Your task to perform on an android device: Open internet settings Image 0: 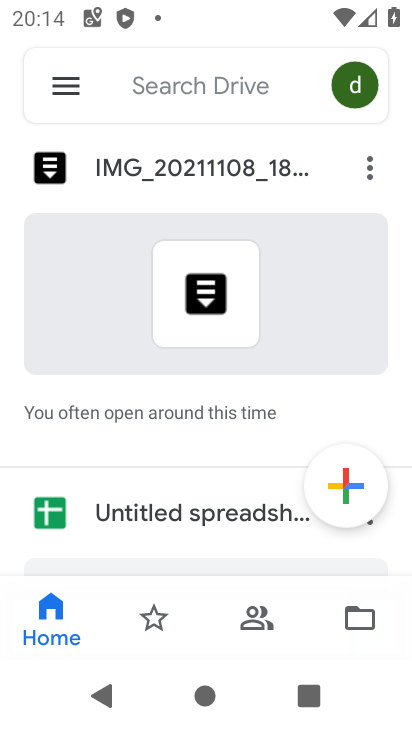
Step 0: press home button
Your task to perform on an android device: Open internet settings Image 1: 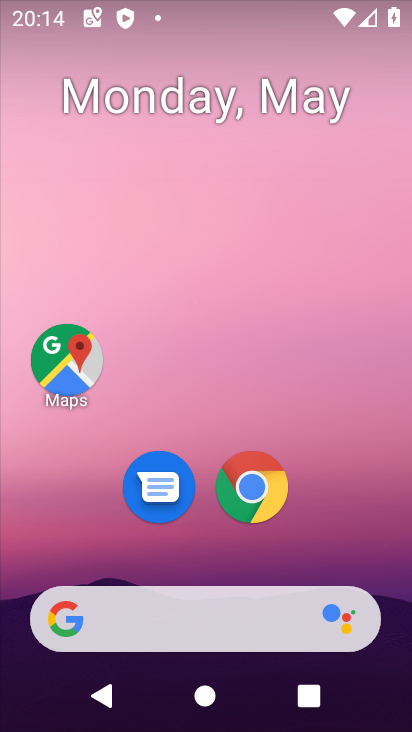
Step 1: drag from (382, 568) to (360, 168)
Your task to perform on an android device: Open internet settings Image 2: 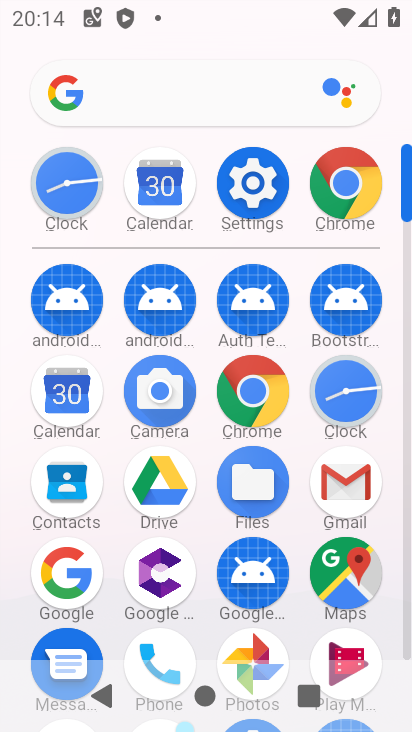
Step 2: click (258, 201)
Your task to perform on an android device: Open internet settings Image 3: 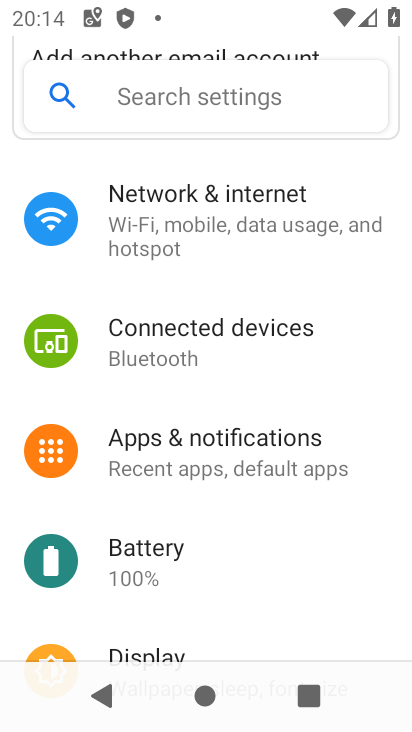
Step 3: drag from (346, 588) to (363, 433)
Your task to perform on an android device: Open internet settings Image 4: 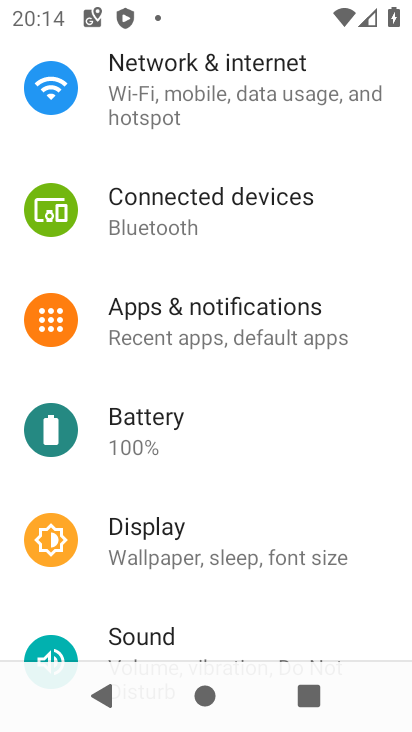
Step 4: drag from (364, 619) to (359, 441)
Your task to perform on an android device: Open internet settings Image 5: 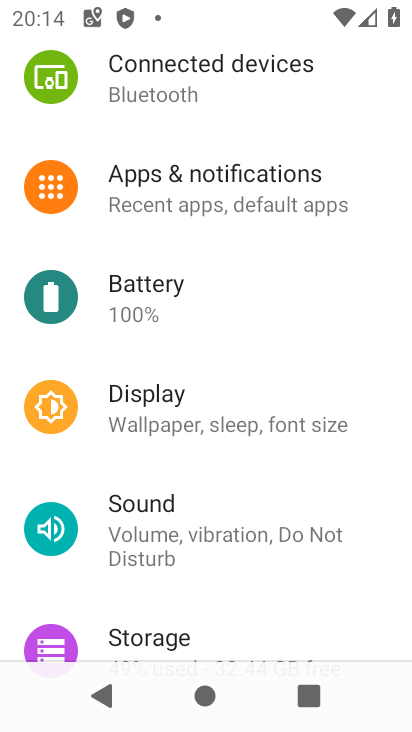
Step 5: drag from (364, 591) to (369, 452)
Your task to perform on an android device: Open internet settings Image 6: 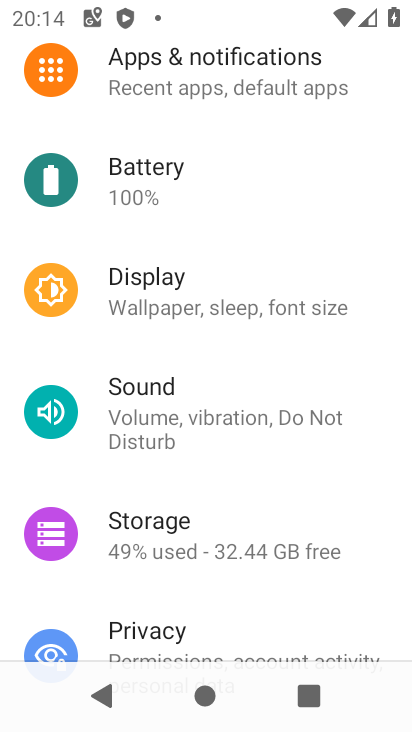
Step 6: drag from (367, 588) to (386, 470)
Your task to perform on an android device: Open internet settings Image 7: 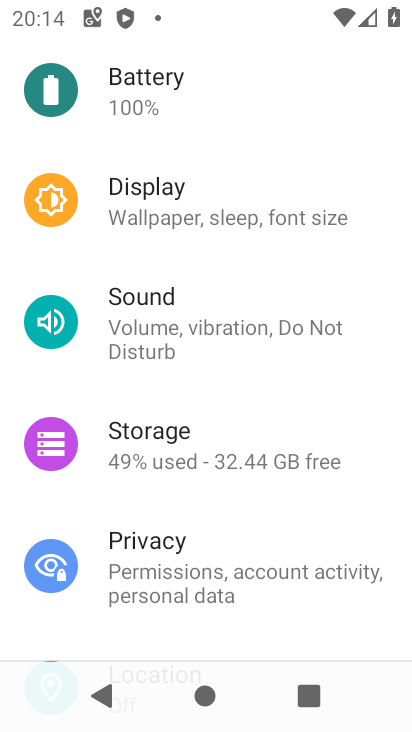
Step 7: drag from (390, 611) to (380, 486)
Your task to perform on an android device: Open internet settings Image 8: 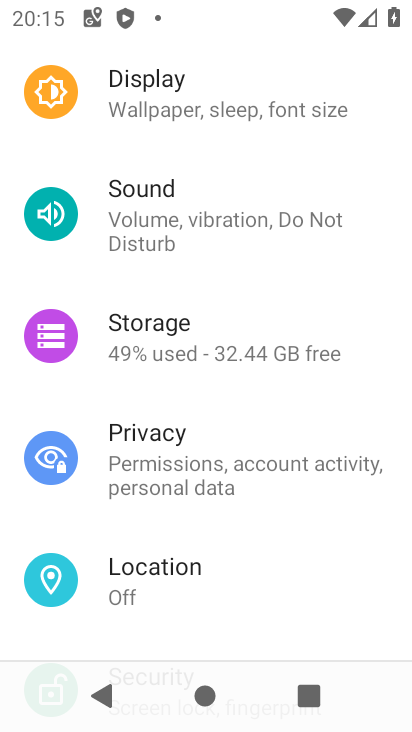
Step 8: drag from (359, 597) to (364, 497)
Your task to perform on an android device: Open internet settings Image 9: 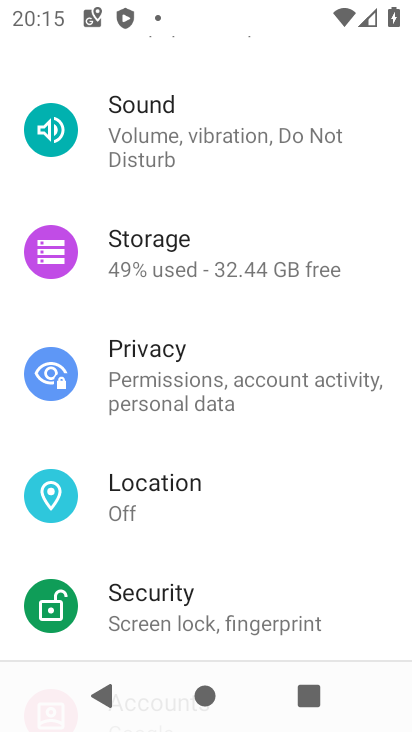
Step 9: drag from (359, 545) to (359, 438)
Your task to perform on an android device: Open internet settings Image 10: 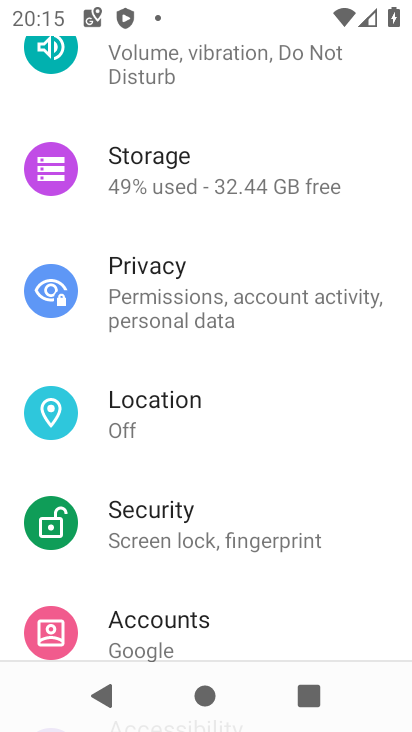
Step 10: drag from (362, 585) to (361, 464)
Your task to perform on an android device: Open internet settings Image 11: 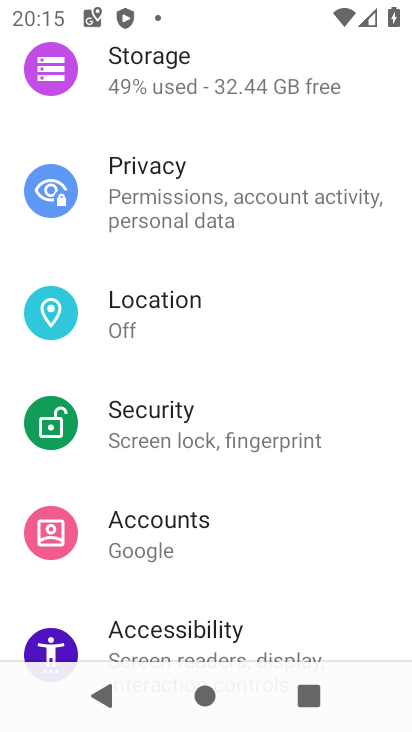
Step 11: drag from (359, 579) to (349, 449)
Your task to perform on an android device: Open internet settings Image 12: 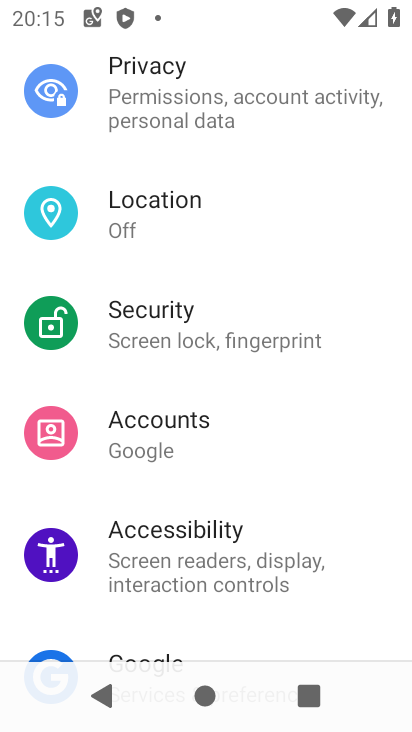
Step 12: drag from (342, 569) to (343, 437)
Your task to perform on an android device: Open internet settings Image 13: 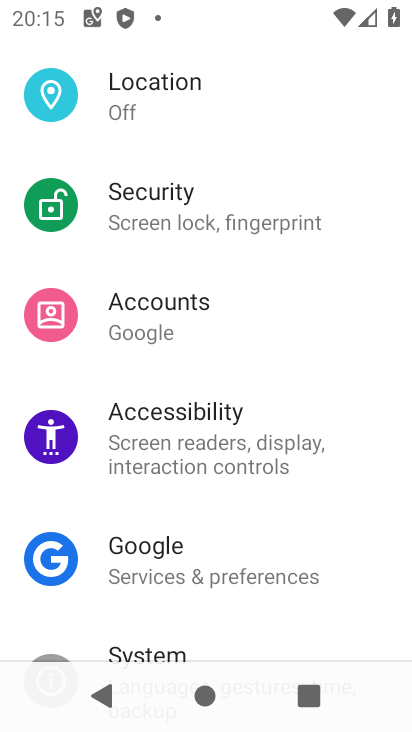
Step 13: drag from (364, 602) to (365, 456)
Your task to perform on an android device: Open internet settings Image 14: 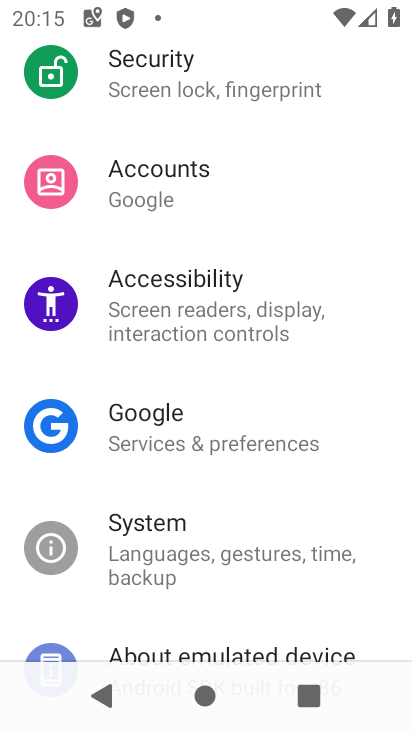
Step 14: drag from (377, 610) to (379, 457)
Your task to perform on an android device: Open internet settings Image 15: 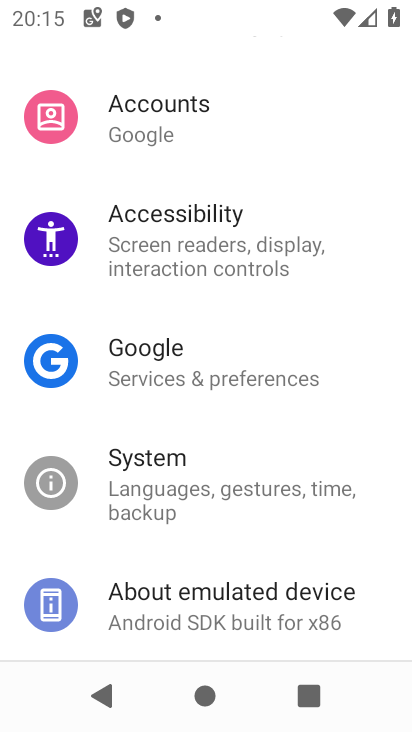
Step 15: drag from (372, 368) to (373, 521)
Your task to perform on an android device: Open internet settings Image 16: 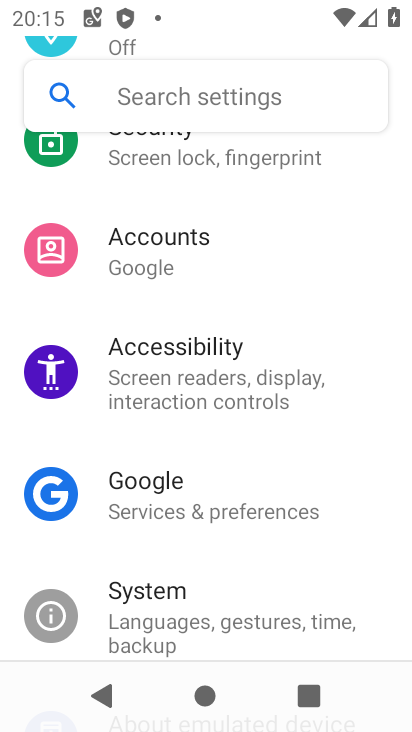
Step 16: drag from (362, 336) to (361, 479)
Your task to perform on an android device: Open internet settings Image 17: 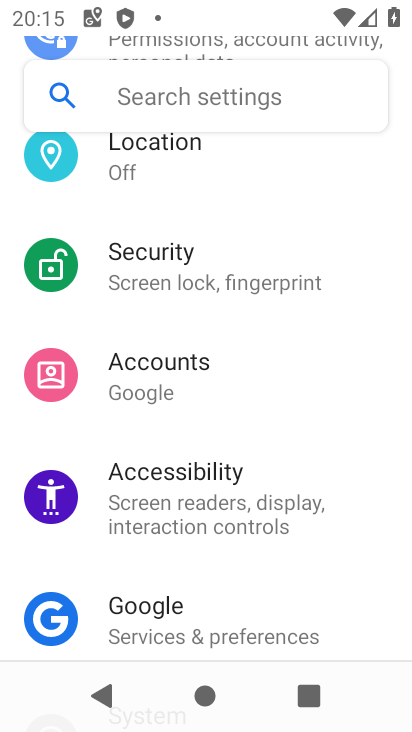
Step 17: drag from (367, 289) to (367, 430)
Your task to perform on an android device: Open internet settings Image 18: 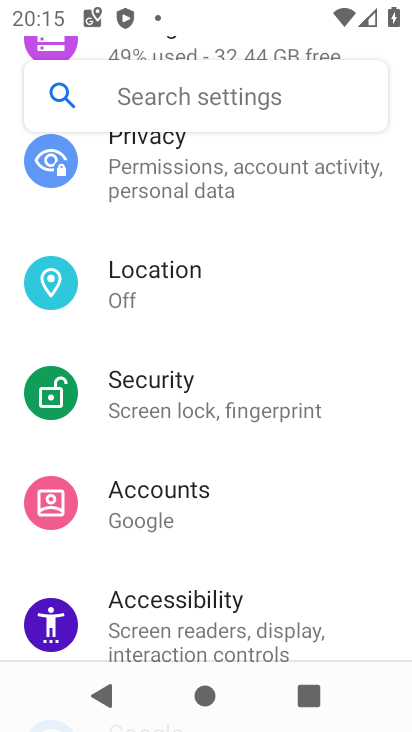
Step 18: drag from (364, 273) to (364, 418)
Your task to perform on an android device: Open internet settings Image 19: 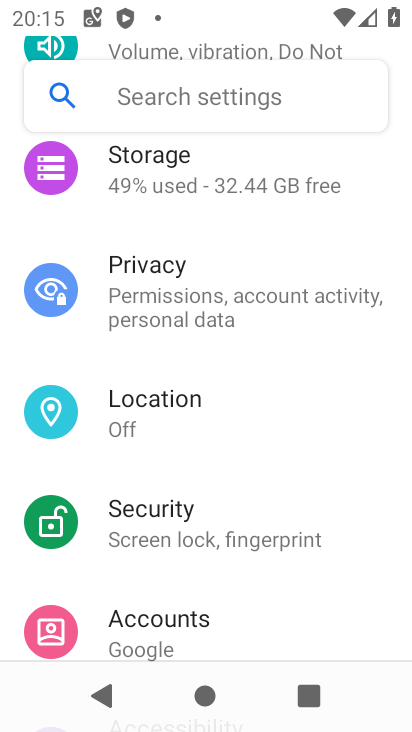
Step 19: drag from (379, 225) to (383, 366)
Your task to perform on an android device: Open internet settings Image 20: 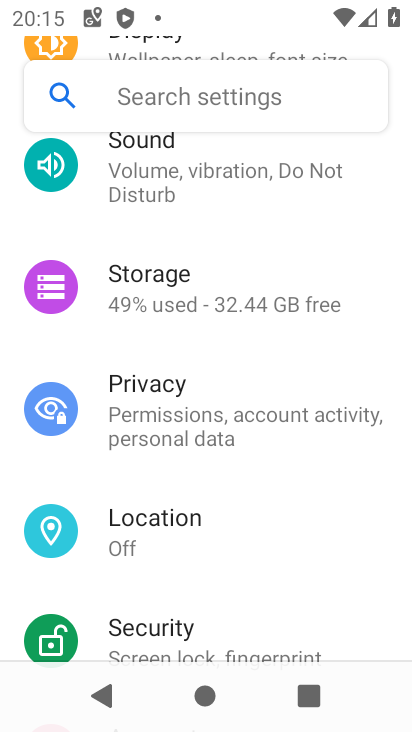
Step 20: drag from (375, 212) to (376, 369)
Your task to perform on an android device: Open internet settings Image 21: 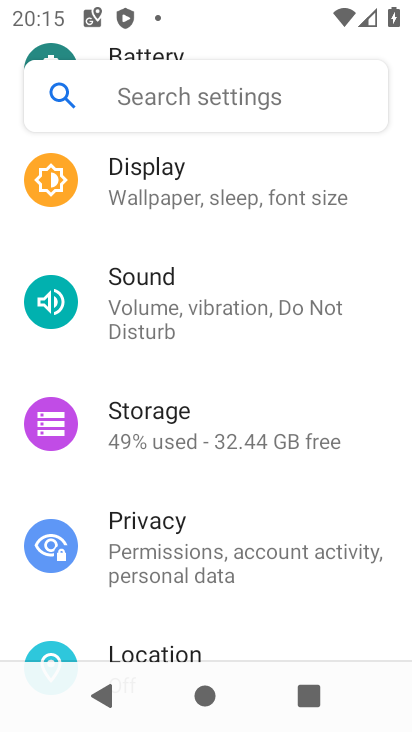
Step 21: drag from (373, 185) to (373, 326)
Your task to perform on an android device: Open internet settings Image 22: 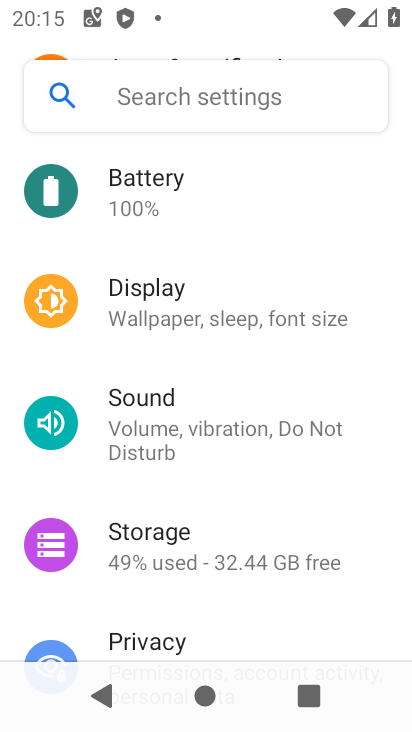
Step 22: drag from (380, 194) to (378, 325)
Your task to perform on an android device: Open internet settings Image 23: 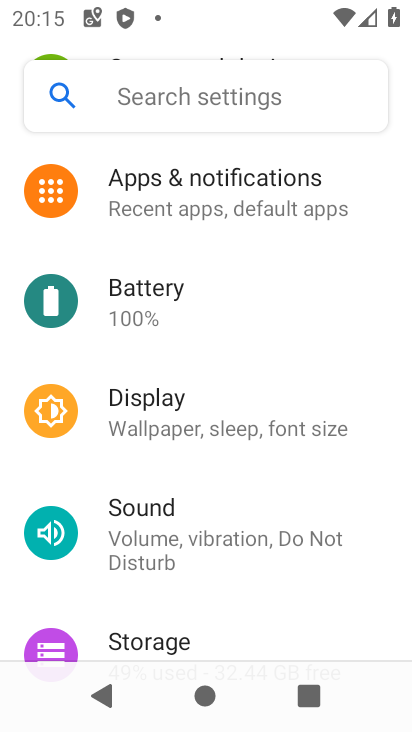
Step 23: drag from (364, 168) to (361, 325)
Your task to perform on an android device: Open internet settings Image 24: 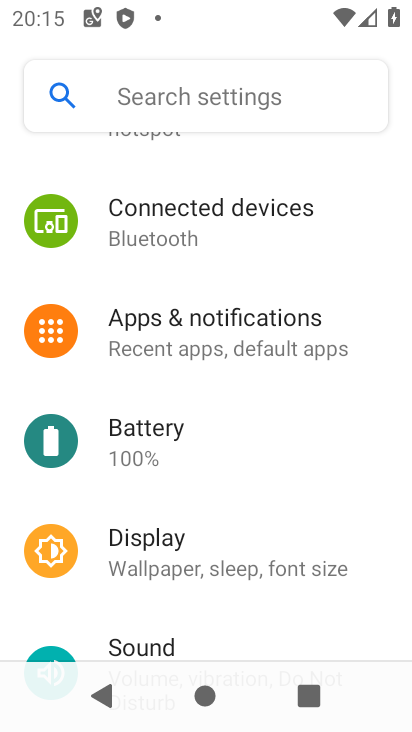
Step 24: drag from (359, 158) to (368, 314)
Your task to perform on an android device: Open internet settings Image 25: 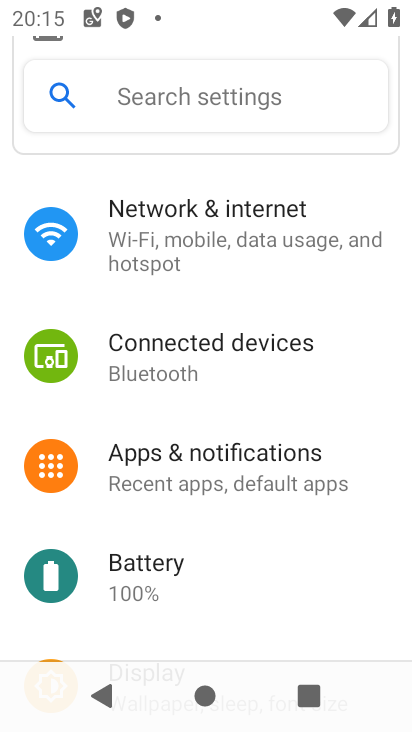
Step 25: click (339, 236)
Your task to perform on an android device: Open internet settings Image 26: 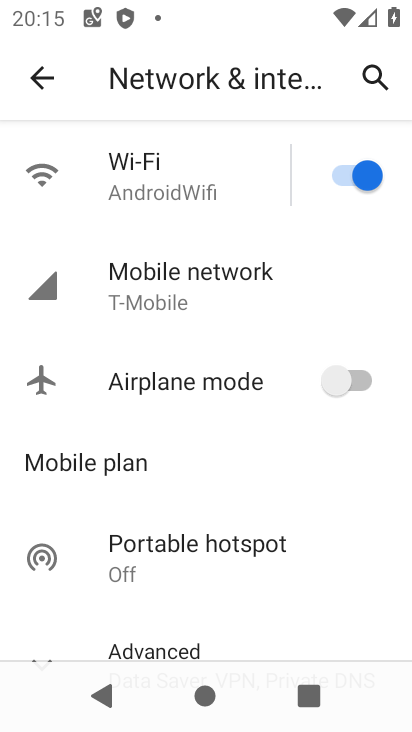
Step 26: task complete